Your task to perform on an android device: Turn off the flashlight Image 0: 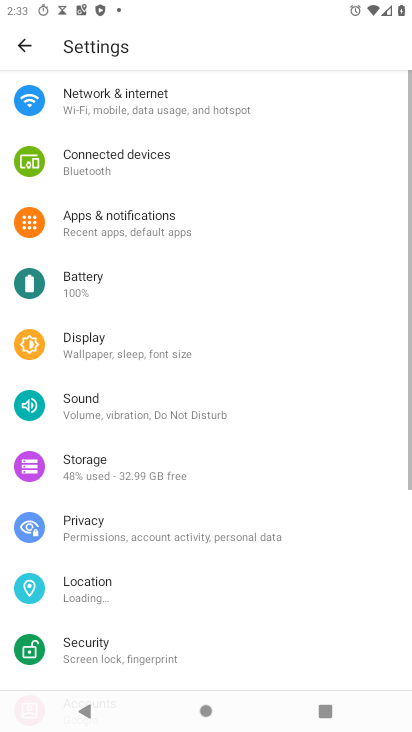
Step 0: press home button
Your task to perform on an android device: Turn off the flashlight Image 1: 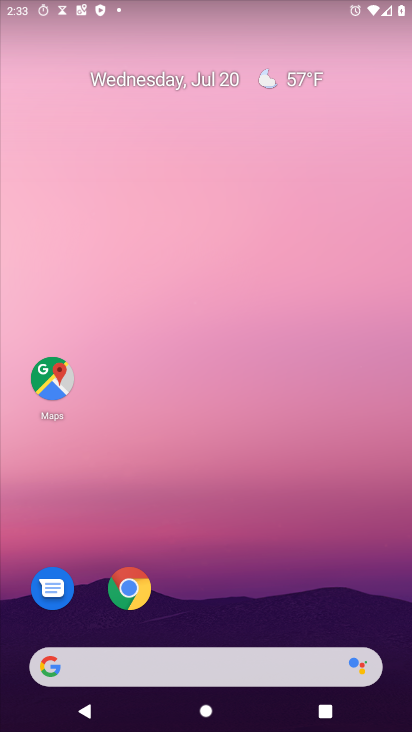
Step 1: drag from (232, 28) to (200, 674)
Your task to perform on an android device: Turn off the flashlight Image 2: 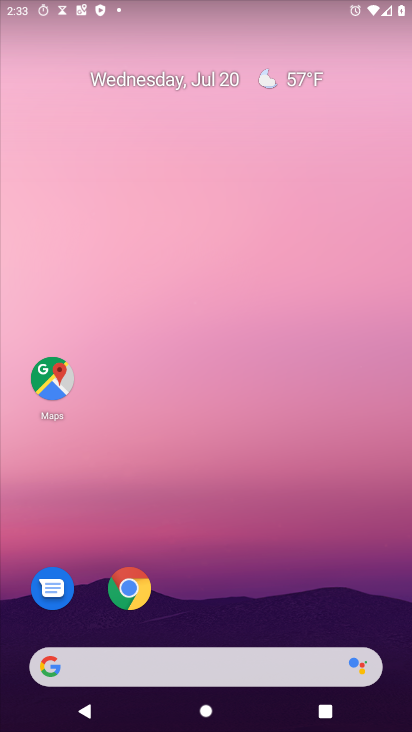
Step 2: click (254, 459)
Your task to perform on an android device: Turn off the flashlight Image 3: 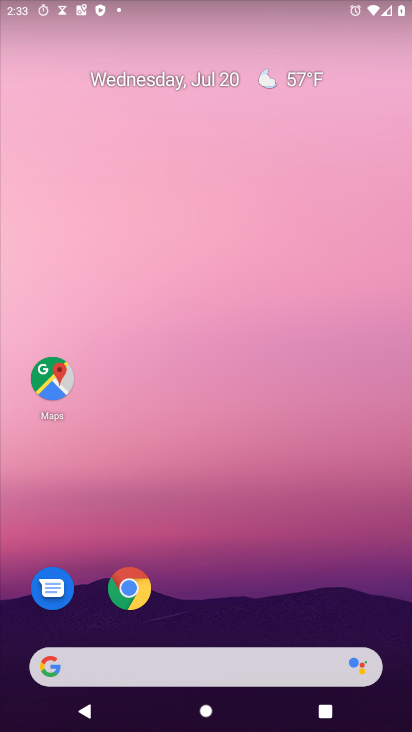
Step 3: click (172, 395)
Your task to perform on an android device: Turn off the flashlight Image 4: 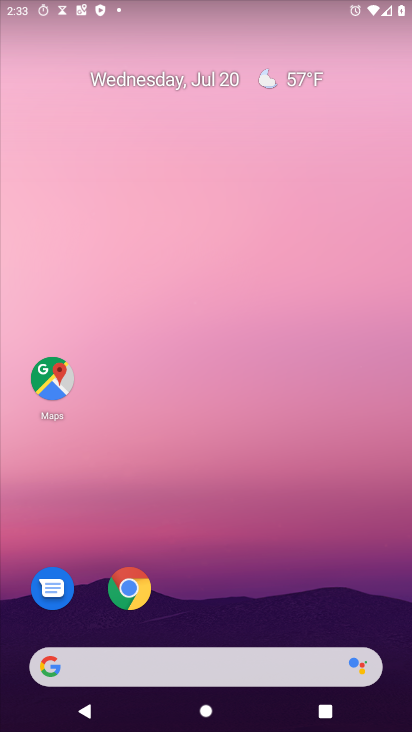
Step 4: task complete